Your task to perform on an android device: turn on sleep mode Image 0: 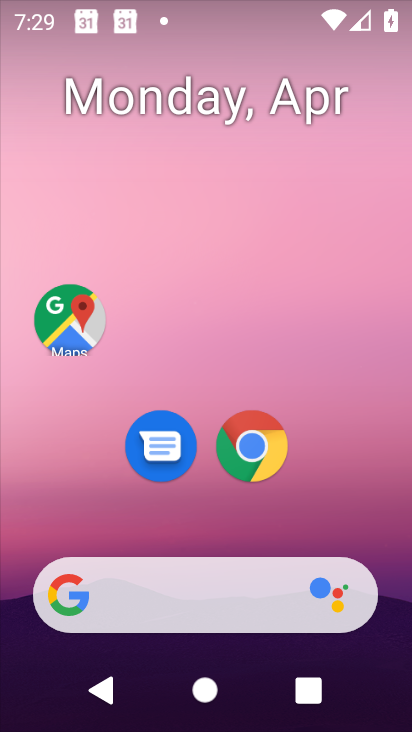
Step 0: drag from (400, 624) to (341, 5)
Your task to perform on an android device: turn on sleep mode Image 1: 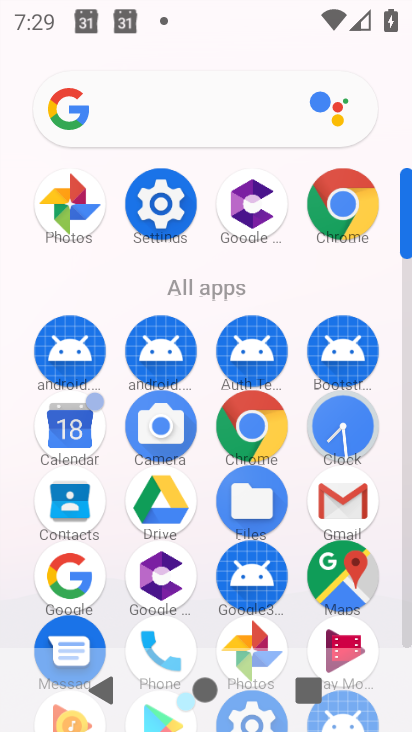
Step 1: click (159, 199)
Your task to perform on an android device: turn on sleep mode Image 2: 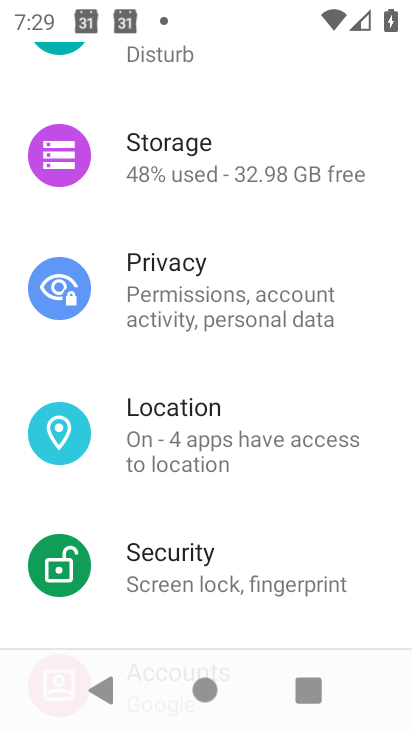
Step 2: drag from (277, 155) to (304, 525)
Your task to perform on an android device: turn on sleep mode Image 3: 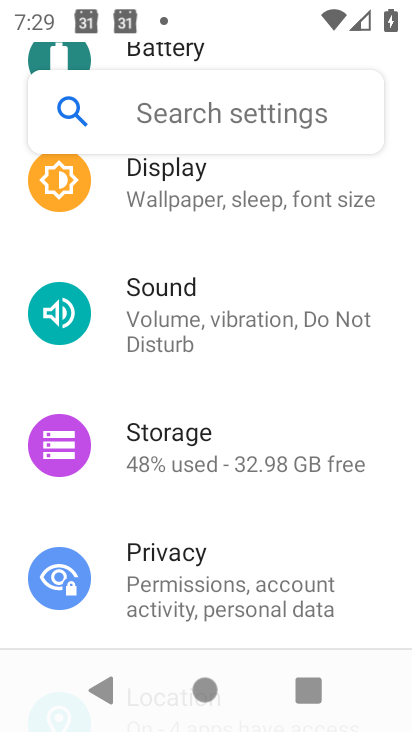
Step 3: drag from (285, 222) to (272, 503)
Your task to perform on an android device: turn on sleep mode Image 4: 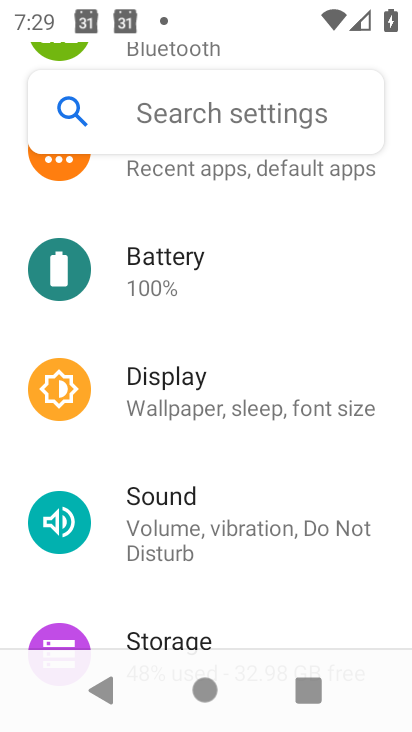
Step 4: click (193, 392)
Your task to perform on an android device: turn on sleep mode Image 5: 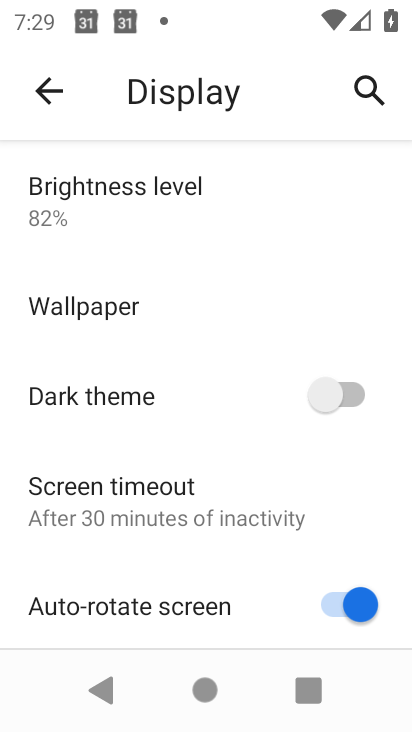
Step 5: drag from (206, 499) to (212, 197)
Your task to perform on an android device: turn on sleep mode Image 6: 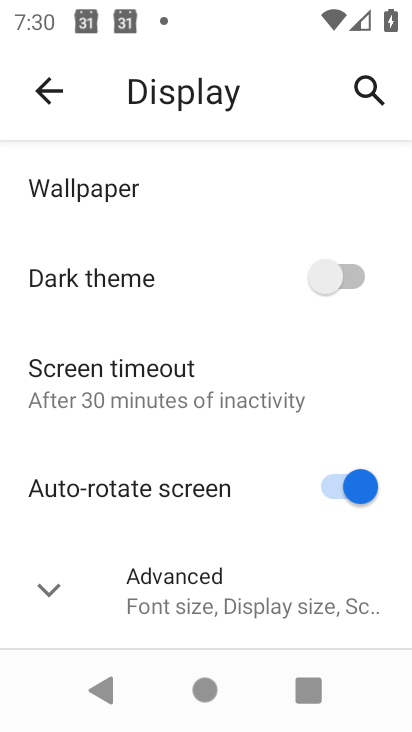
Step 6: click (169, 566)
Your task to perform on an android device: turn on sleep mode Image 7: 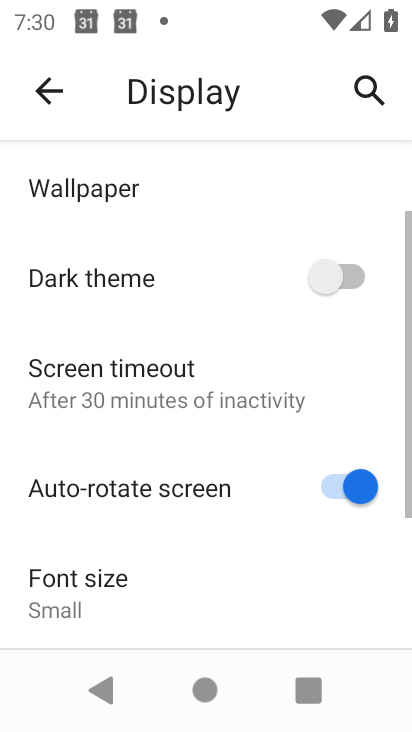
Step 7: task complete